Your task to perform on an android device: Search for Mexican restaurants on Maps Image 0: 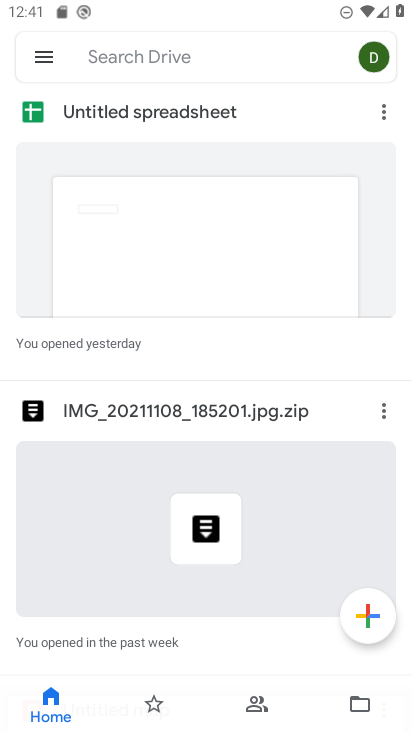
Step 0: press home button
Your task to perform on an android device: Search for Mexican restaurants on Maps Image 1: 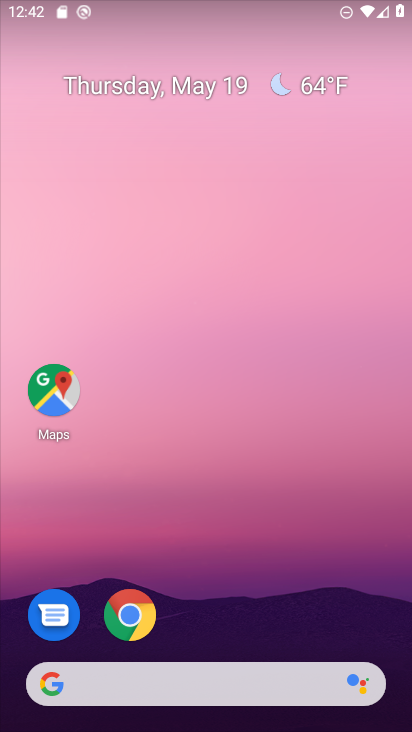
Step 1: drag from (261, 711) to (259, 106)
Your task to perform on an android device: Search for Mexican restaurants on Maps Image 2: 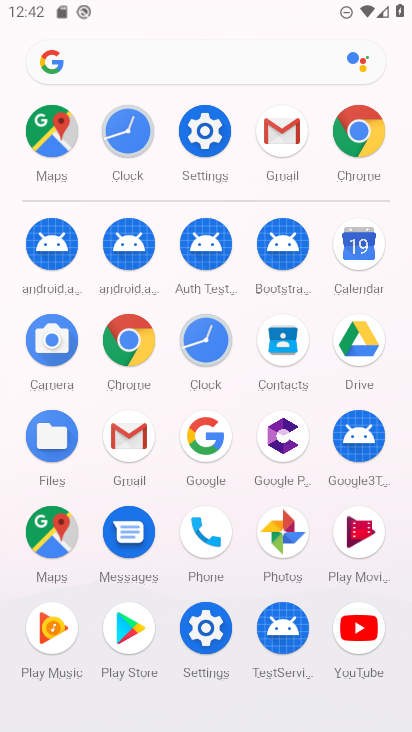
Step 2: click (64, 135)
Your task to perform on an android device: Search for Mexican restaurants on Maps Image 3: 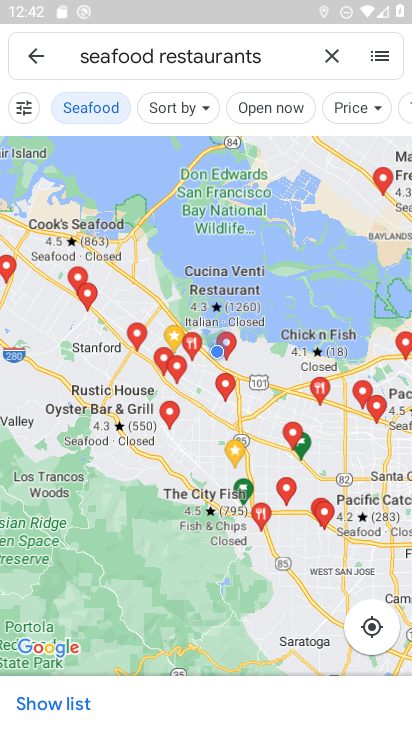
Step 3: click (328, 52)
Your task to perform on an android device: Search for Mexican restaurants on Maps Image 4: 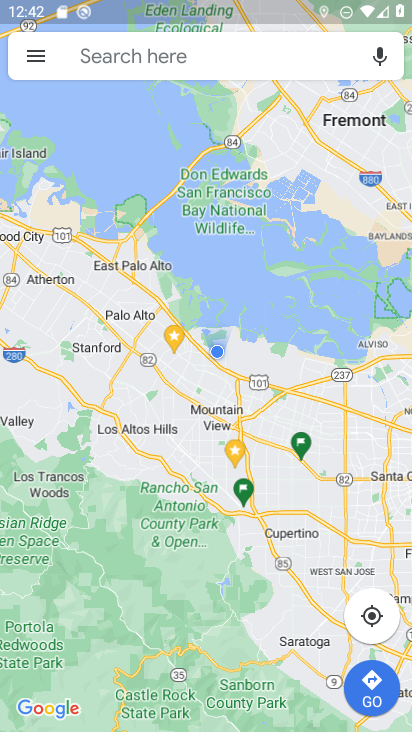
Step 4: click (148, 59)
Your task to perform on an android device: Search for Mexican restaurants on Maps Image 5: 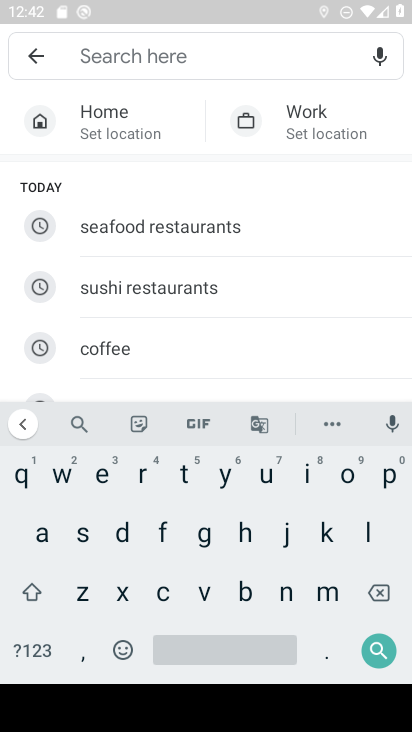
Step 5: click (325, 593)
Your task to perform on an android device: Search for Mexican restaurants on Maps Image 6: 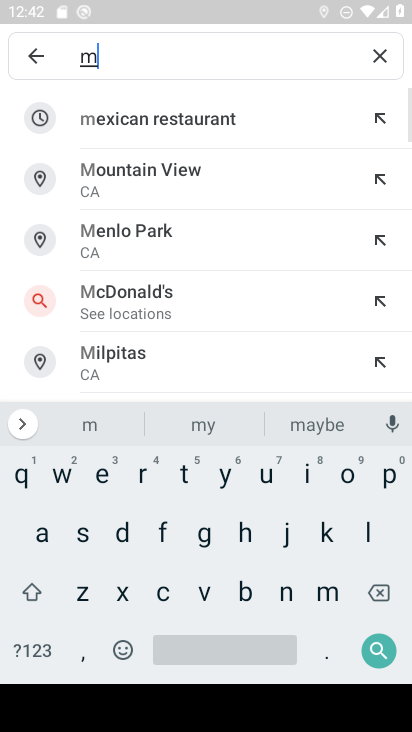
Step 6: click (174, 135)
Your task to perform on an android device: Search for Mexican restaurants on Maps Image 7: 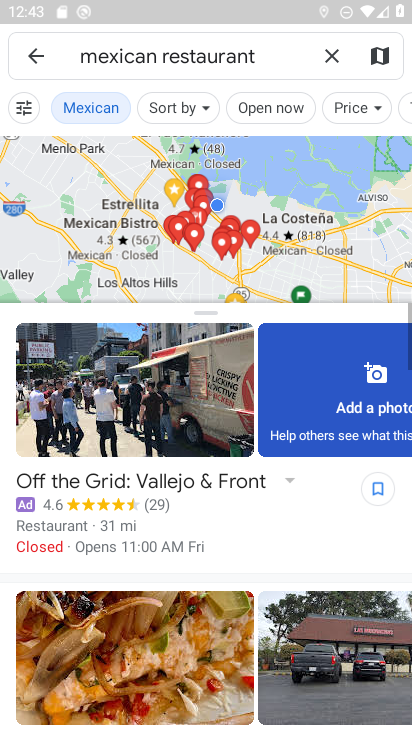
Step 7: click (169, 227)
Your task to perform on an android device: Search for Mexican restaurants on Maps Image 8: 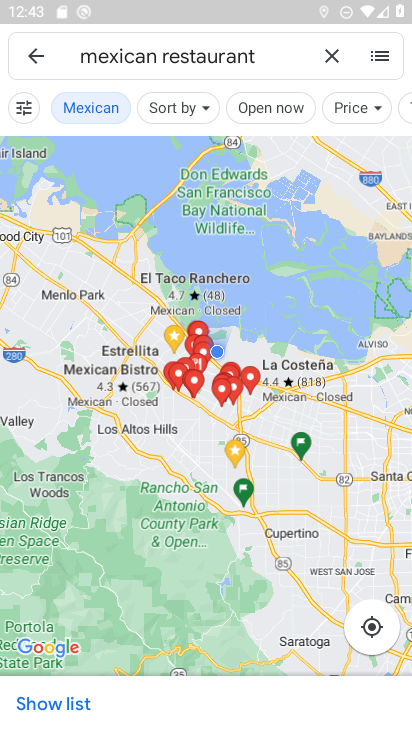
Step 8: click (239, 327)
Your task to perform on an android device: Search for Mexican restaurants on Maps Image 9: 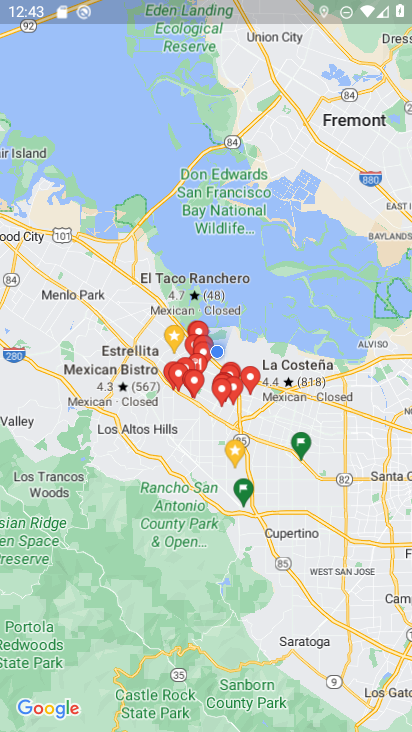
Step 9: task complete